Your task to perform on an android device: turn on wifi Image 0: 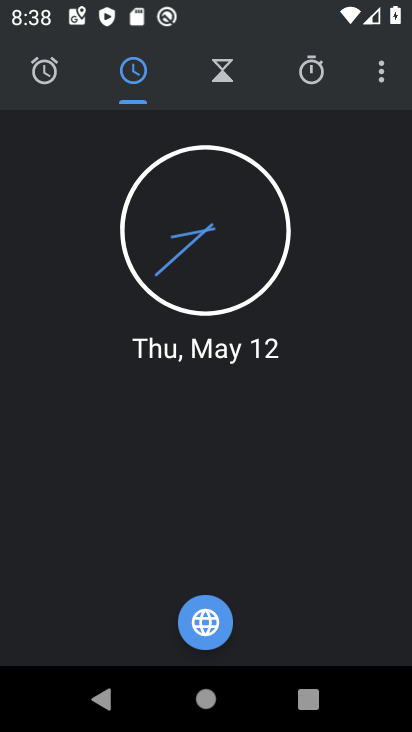
Step 0: press home button
Your task to perform on an android device: turn on wifi Image 1: 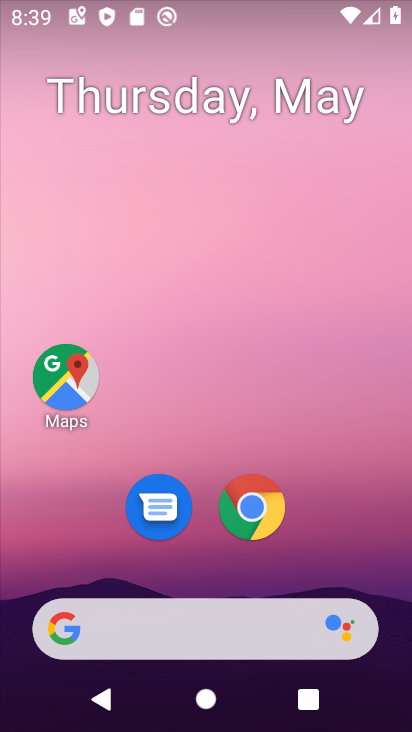
Step 1: drag from (260, 667) to (266, 234)
Your task to perform on an android device: turn on wifi Image 2: 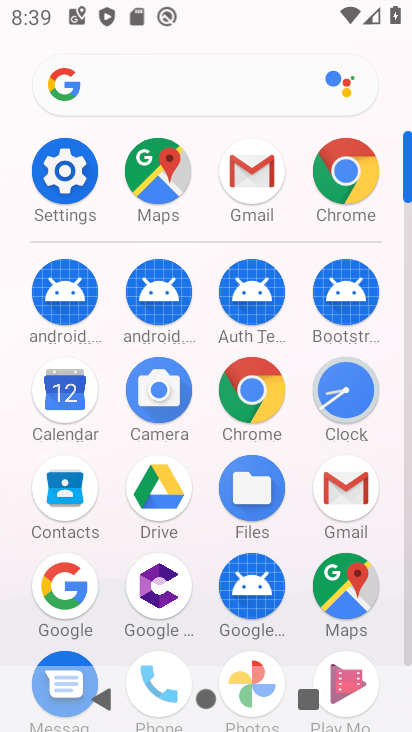
Step 2: click (51, 180)
Your task to perform on an android device: turn on wifi Image 3: 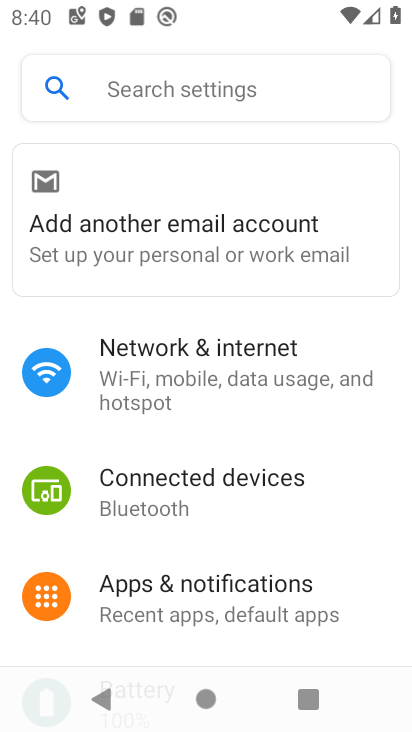
Step 3: click (165, 360)
Your task to perform on an android device: turn on wifi Image 4: 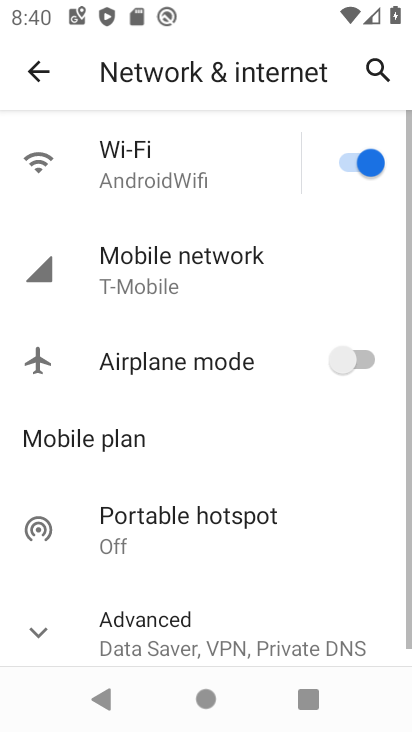
Step 4: click (150, 154)
Your task to perform on an android device: turn on wifi Image 5: 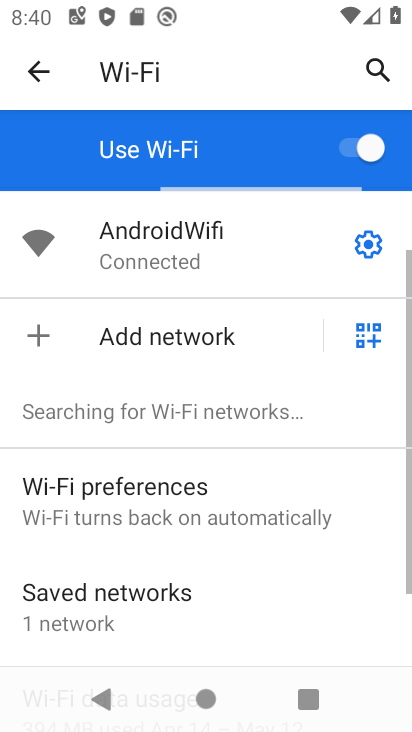
Step 5: click (345, 138)
Your task to perform on an android device: turn on wifi Image 6: 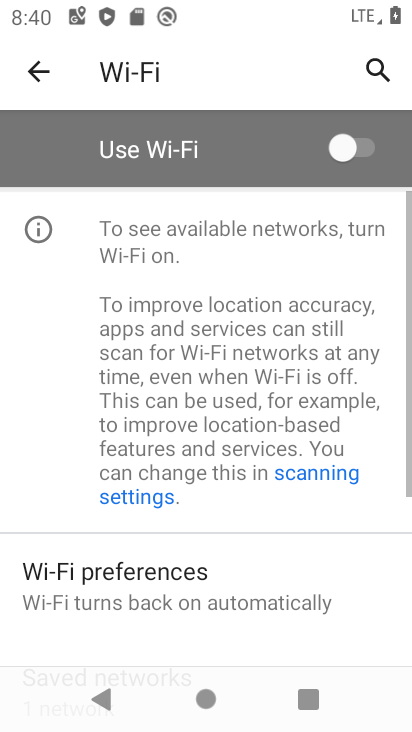
Step 6: click (345, 138)
Your task to perform on an android device: turn on wifi Image 7: 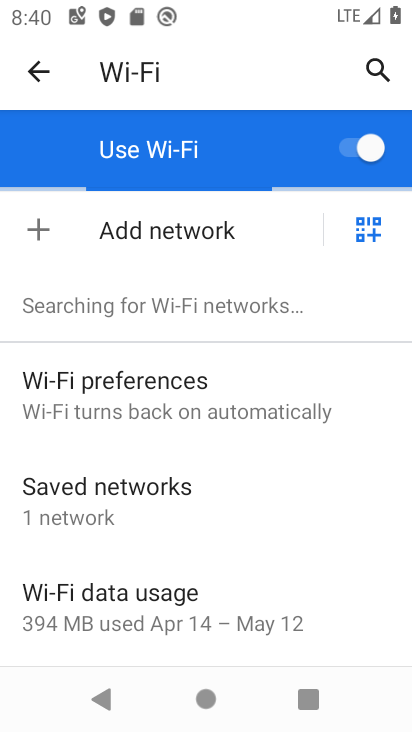
Step 7: task complete